Your task to perform on an android device: turn off picture-in-picture Image 0: 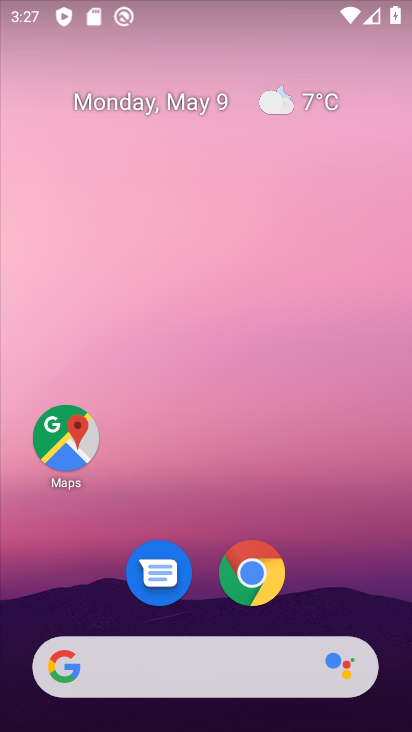
Step 0: click (257, 578)
Your task to perform on an android device: turn off picture-in-picture Image 1: 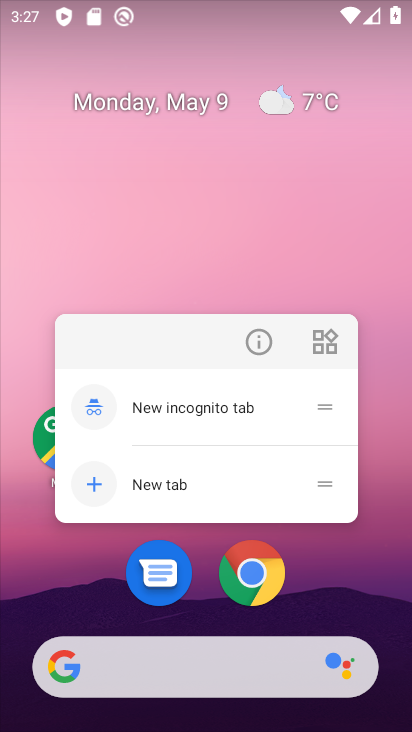
Step 1: click (258, 347)
Your task to perform on an android device: turn off picture-in-picture Image 2: 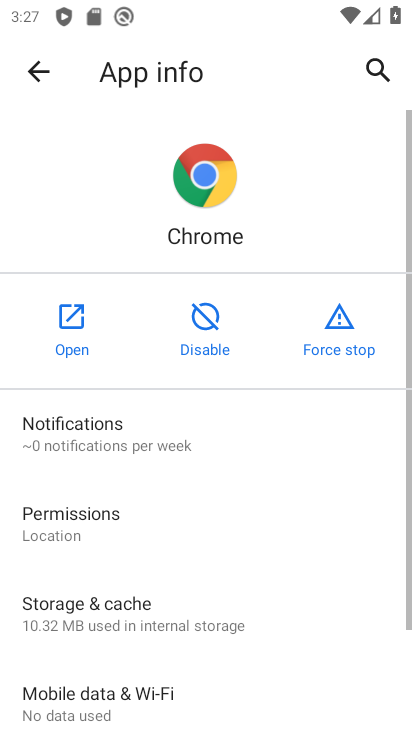
Step 2: drag from (258, 663) to (239, 108)
Your task to perform on an android device: turn off picture-in-picture Image 3: 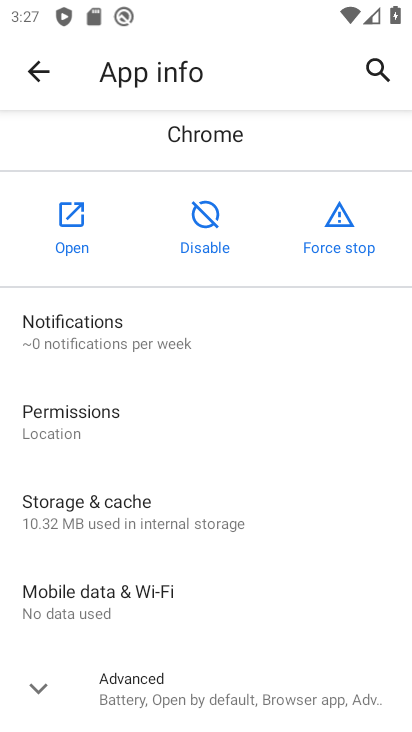
Step 3: click (38, 696)
Your task to perform on an android device: turn off picture-in-picture Image 4: 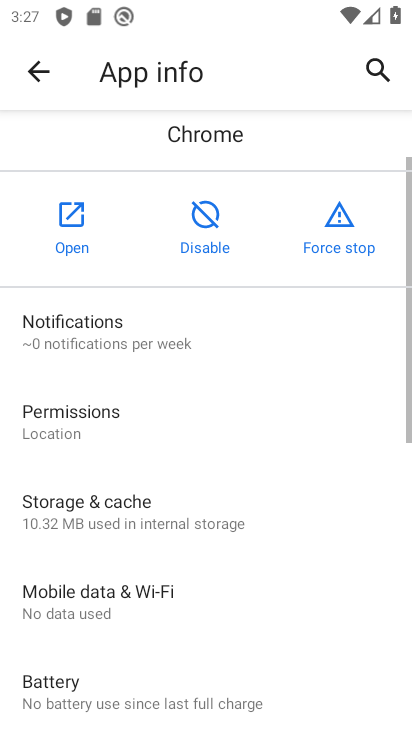
Step 4: drag from (181, 691) to (157, 183)
Your task to perform on an android device: turn off picture-in-picture Image 5: 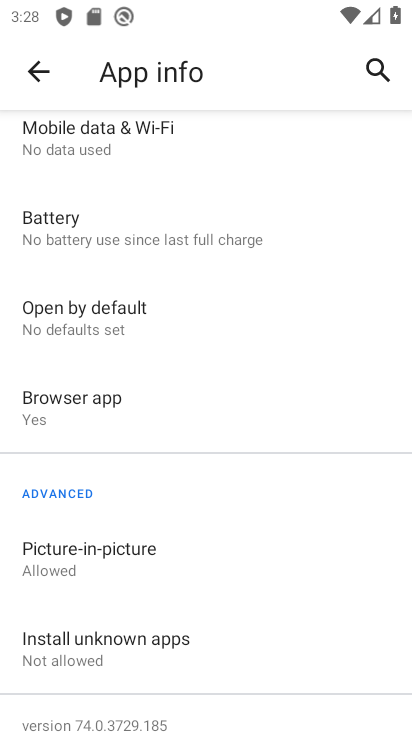
Step 5: click (105, 551)
Your task to perform on an android device: turn off picture-in-picture Image 6: 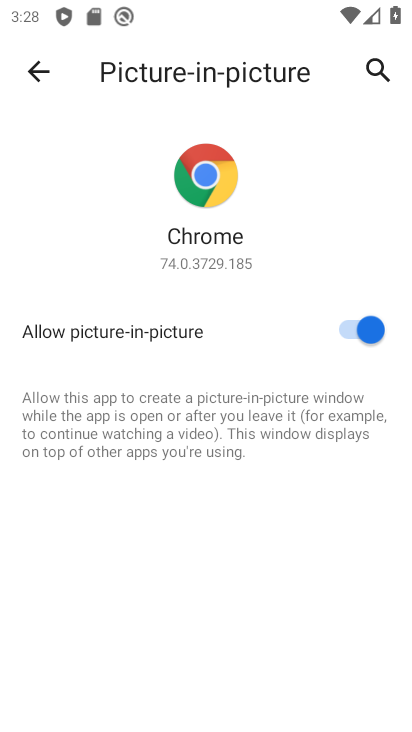
Step 6: click (360, 335)
Your task to perform on an android device: turn off picture-in-picture Image 7: 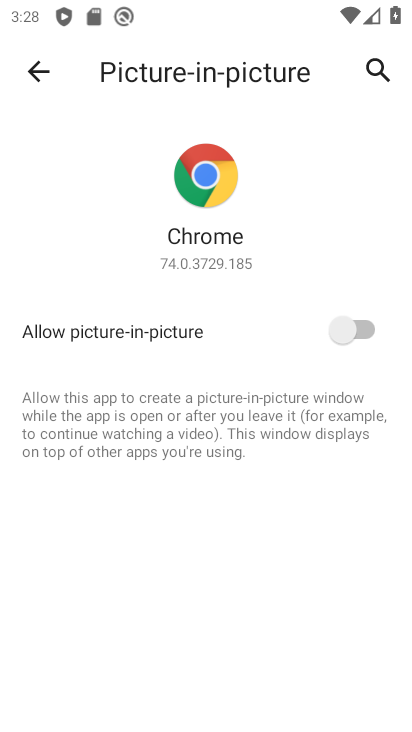
Step 7: task complete